Your task to perform on an android device: Open wifi settings Image 0: 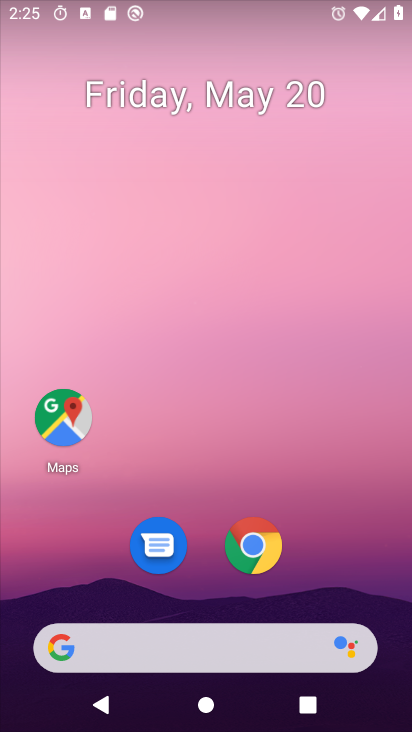
Step 0: drag from (229, 653) to (253, 23)
Your task to perform on an android device: Open wifi settings Image 1: 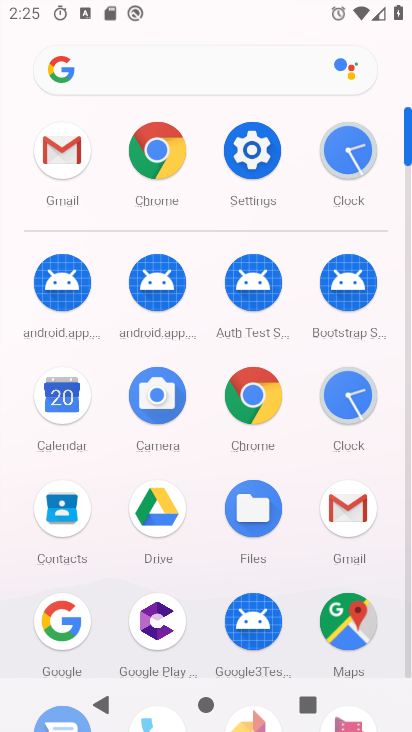
Step 1: click (267, 144)
Your task to perform on an android device: Open wifi settings Image 2: 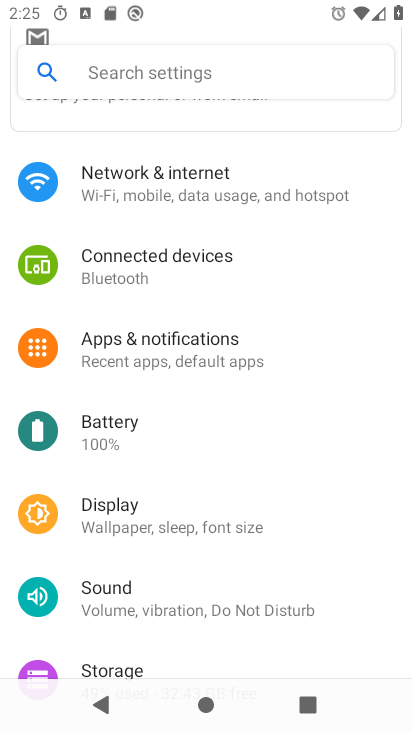
Step 2: click (204, 184)
Your task to perform on an android device: Open wifi settings Image 3: 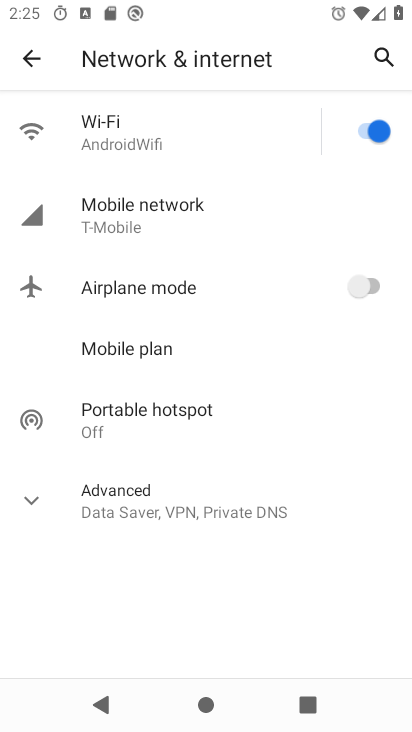
Step 3: click (164, 151)
Your task to perform on an android device: Open wifi settings Image 4: 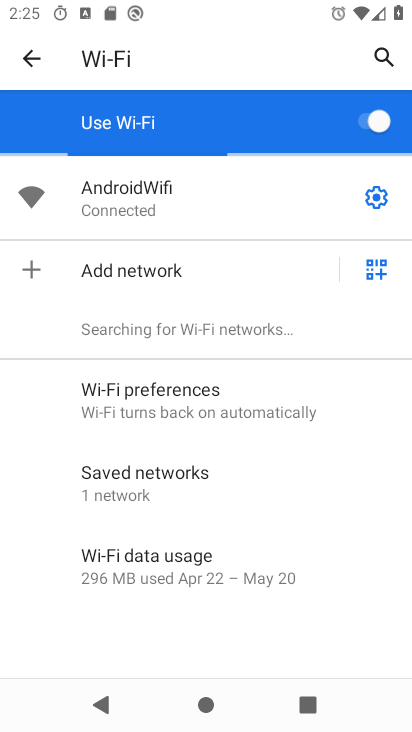
Step 4: task complete